Your task to perform on an android device: Open Reddit.com Image 0: 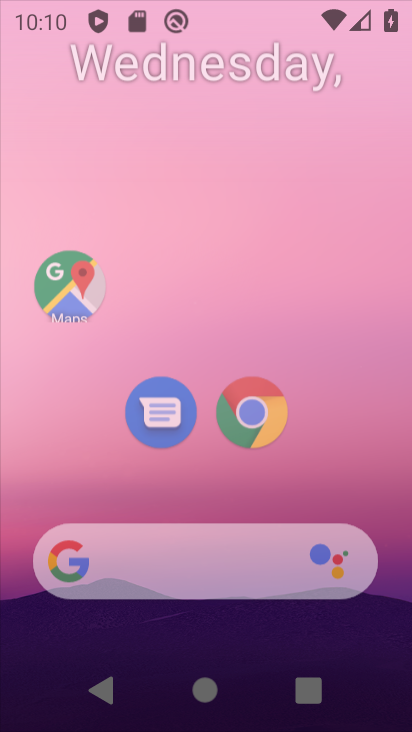
Step 0: press home button
Your task to perform on an android device: Open Reddit.com Image 1: 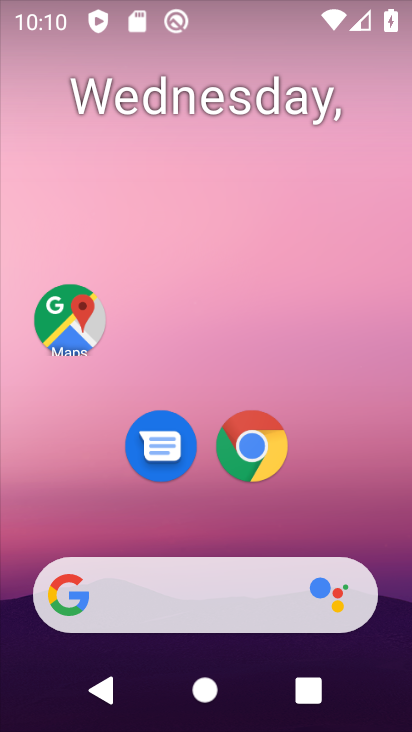
Step 1: click (182, 589)
Your task to perform on an android device: Open Reddit.com Image 2: 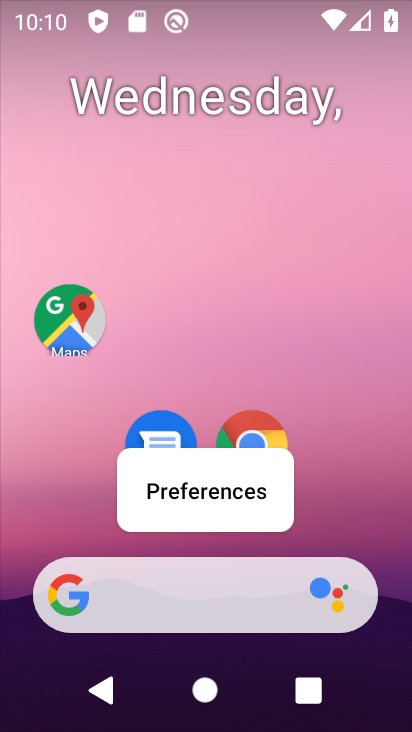
Step 2: click (194, 615)
Your task to perform on an android device: Open Reddit.com Image 3: 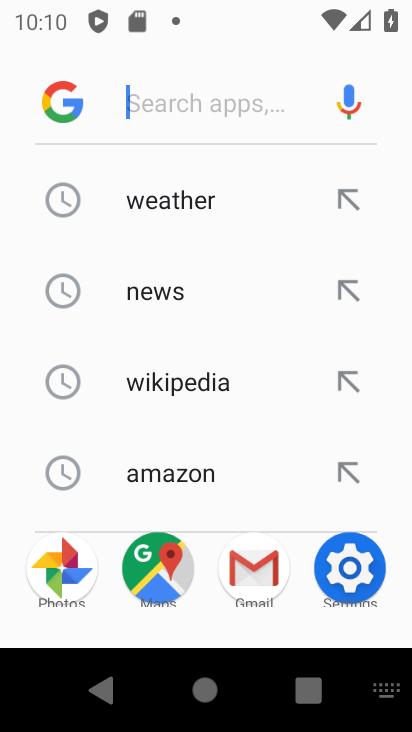
Step 3: type "Reddit.com"
Your task to perform on an android device: Open Reddit.com Image 4: 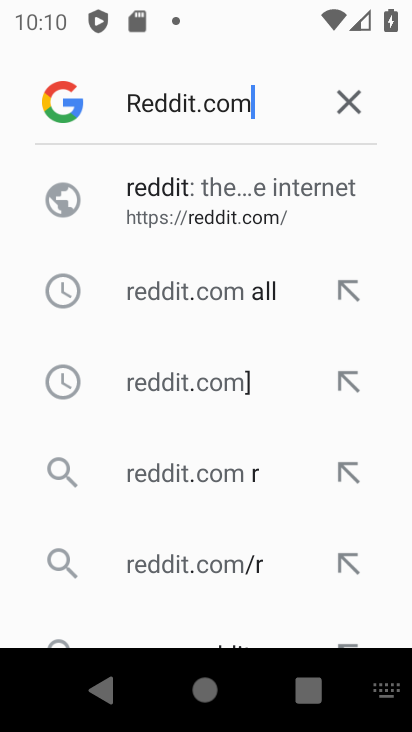
Step 4: click (171, 211)
Your task to perform on an android device: Open Reddit.com Image 5: 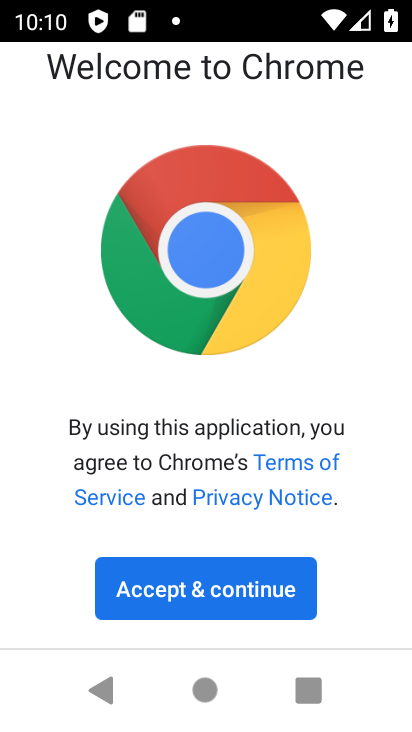
Step 5: click (205, 590)
Your task to perform on an android device: Open Reddit.com Image 6: 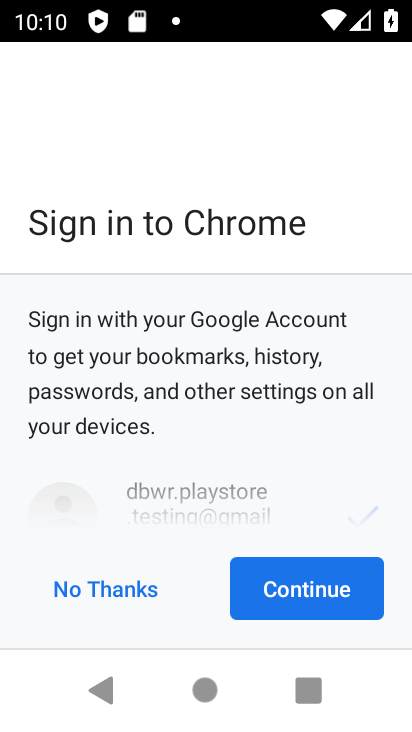
Step 6: click (318, 589)
Your task to perform on an android device: Open Reddit.com Image 7: 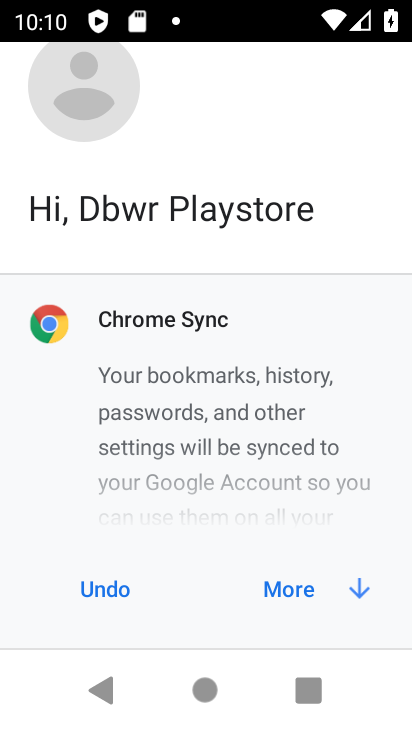
Step 7: click (318, 589)
Your task to perform on an android device: Open Reddit.com Image 8: 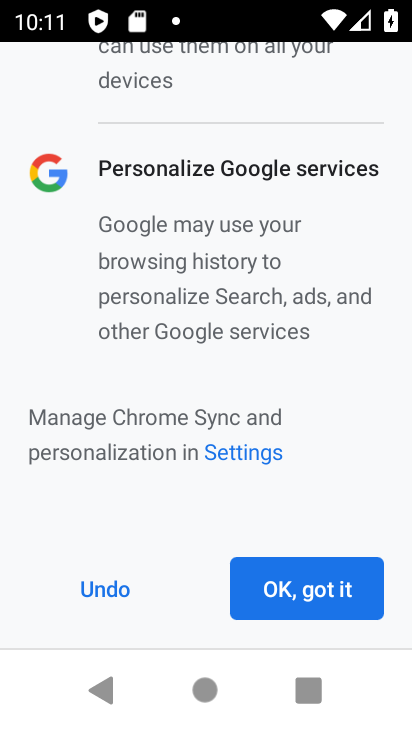
Step 8: click (318, 589)
Your task to perform on an android device: Open Reddit.com Image 9: 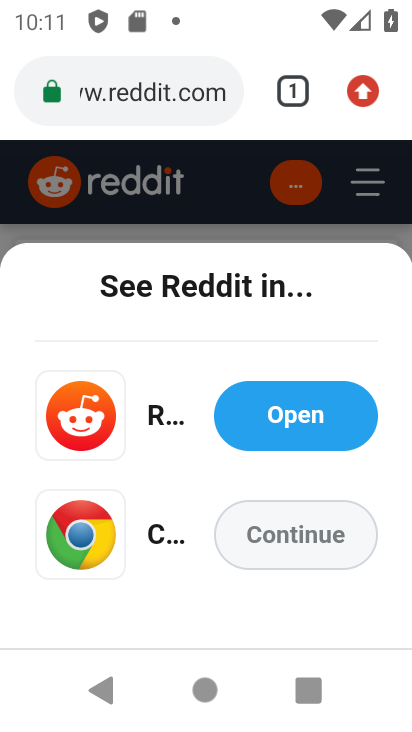
Step 9: click (321, 537)
Your task to perform on an android device: Open Reddit.com Image 10: 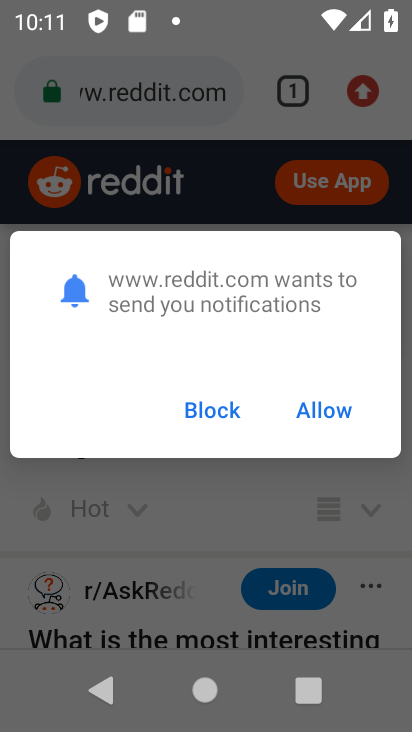
Step 10: click (326, 416)
Your task to perform on an android device: Open Reddit.com Image 11: 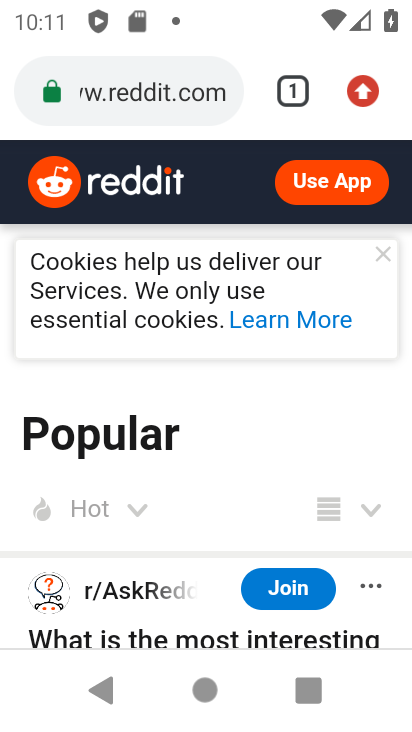
Step 11: task complete